Your task to perform on an android device: Add "panasonic triple a" to the cart on ebay Image 0: 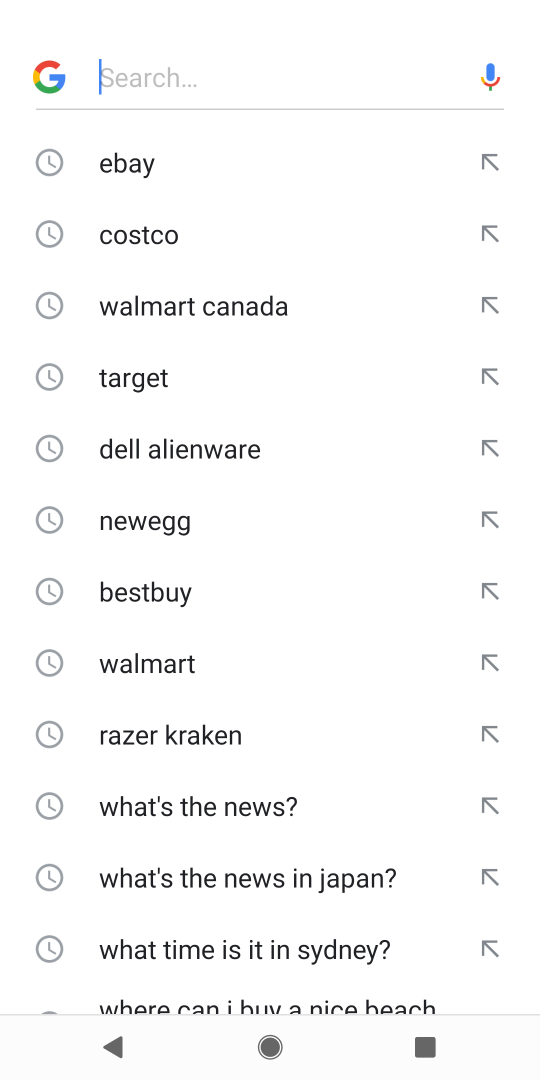
Step 0: click (253, 953)
Your task to perform on an android device: Add "panasonic triple a" to the cart on ebay Image 1: 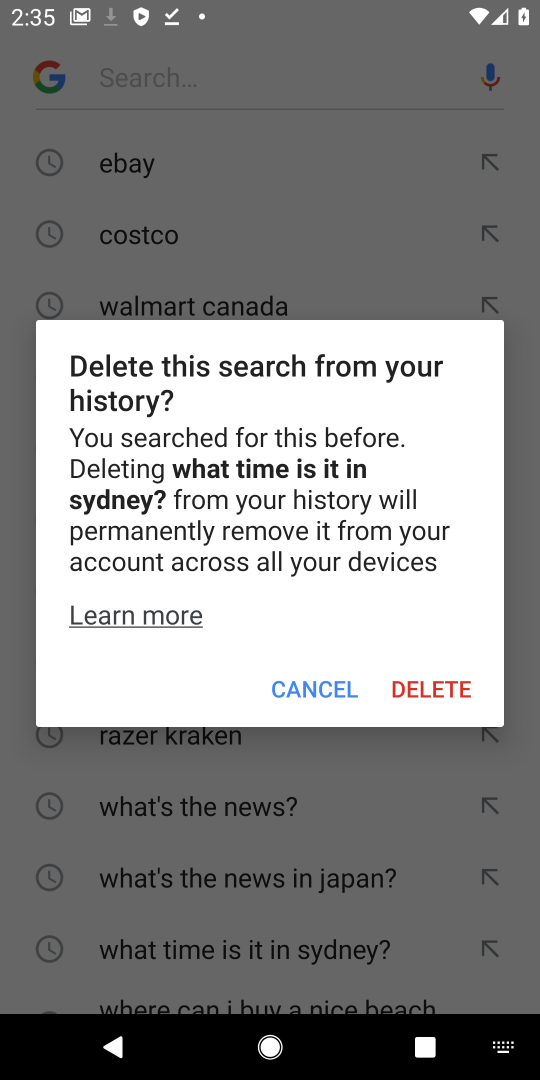
Step 1: click (312, 696)
Your task to perform on an android device: Add "panasonic triple a" to the cart on ebay Image 2: 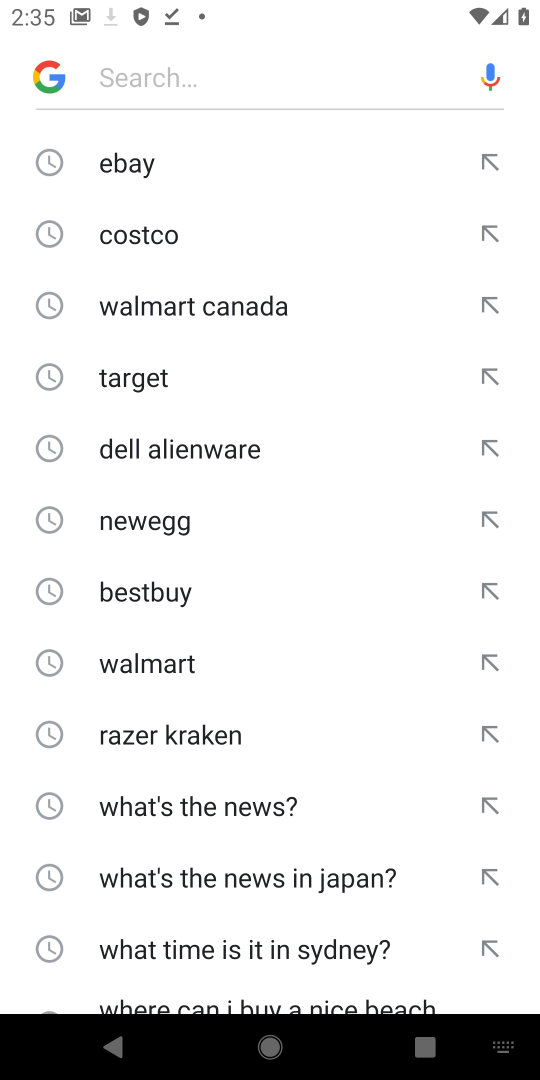
Step 2: click (104, 159)
Your task to perform on an android device: Add "panasonic triple a" to the cart on ebay Image 3: 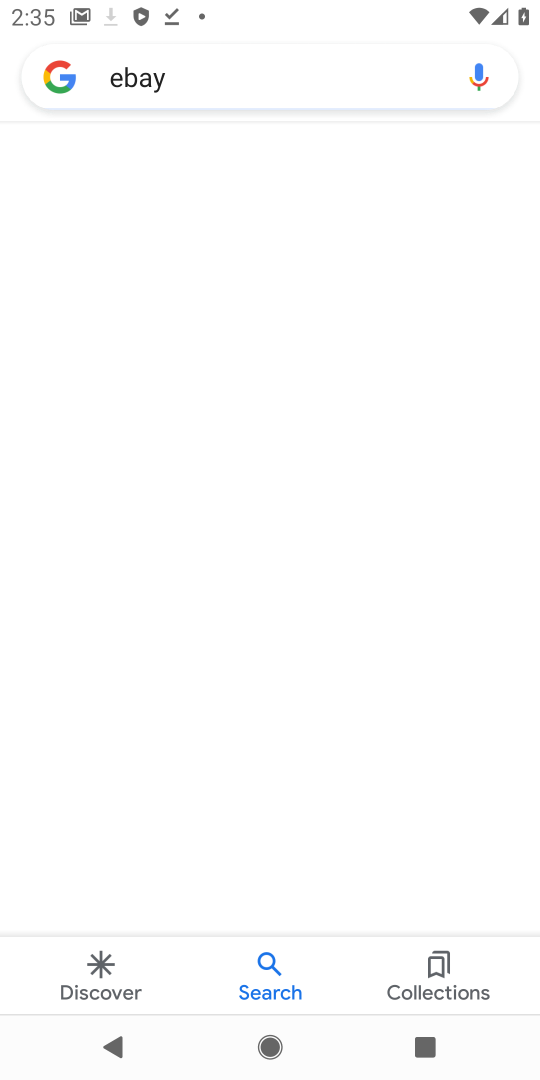
Step 3: click (119, 161)
Your task to perform on an android device: Add "panasonic triple a" to the cart on ebay Image 4: 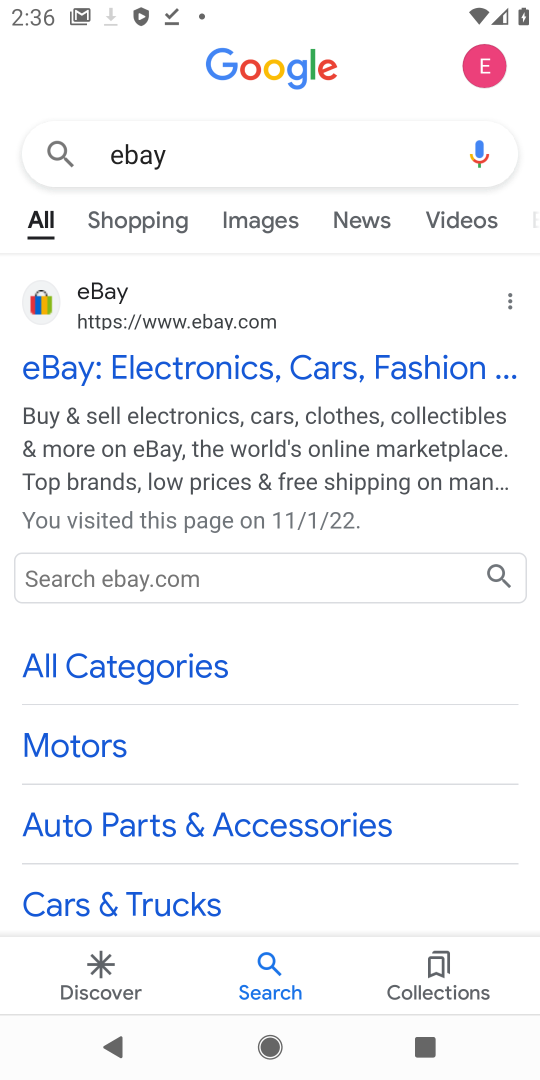
Step 4: click (117, 356)
Your task to perform on an android device: Add "panasonic triple a" to the cart on ebay Image 5: 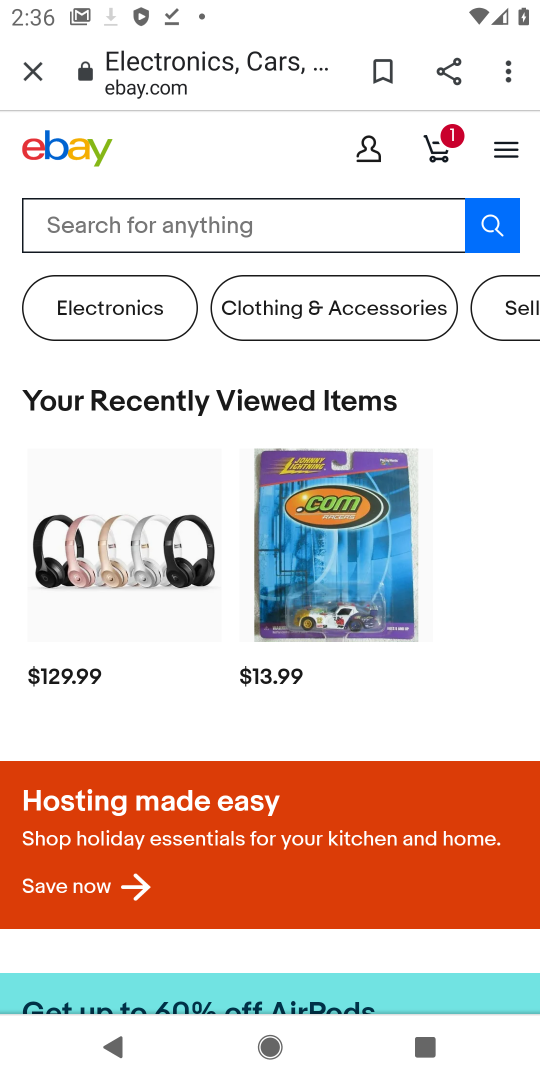
Step 5: click (187, 224)
Your task to perform on an android device: Add "panasonic triple a" to the cart on ebay Image 6: 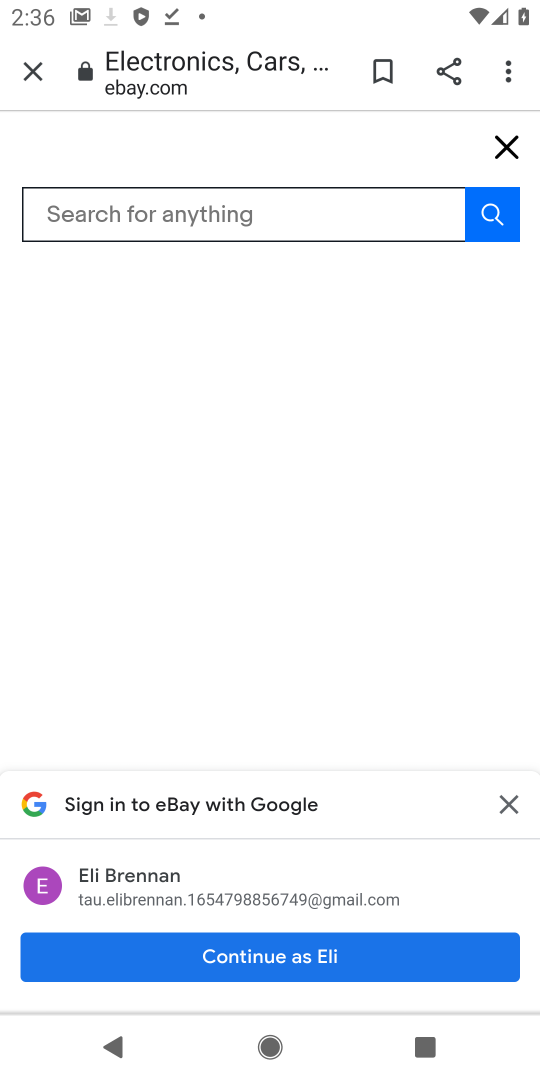
Step 6: type "panasonic triple a"
Your task to perform on an android device: Add "panasonic triple a" to the cart on ebay Image 7: 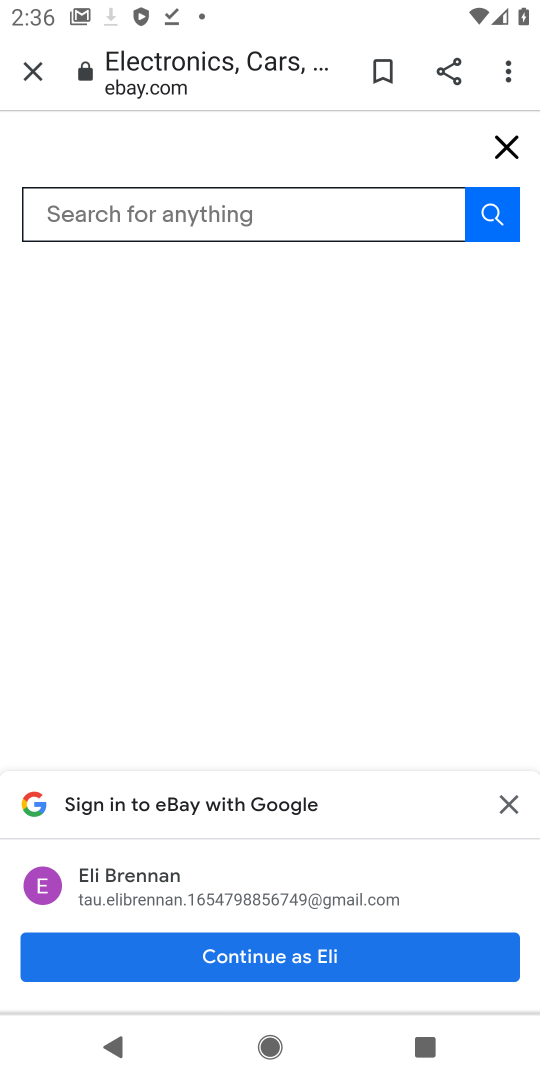
Step 7: type ""
Your task to perform on an android device: Add "panasonic triple a" to the cart on ebay Image 8: 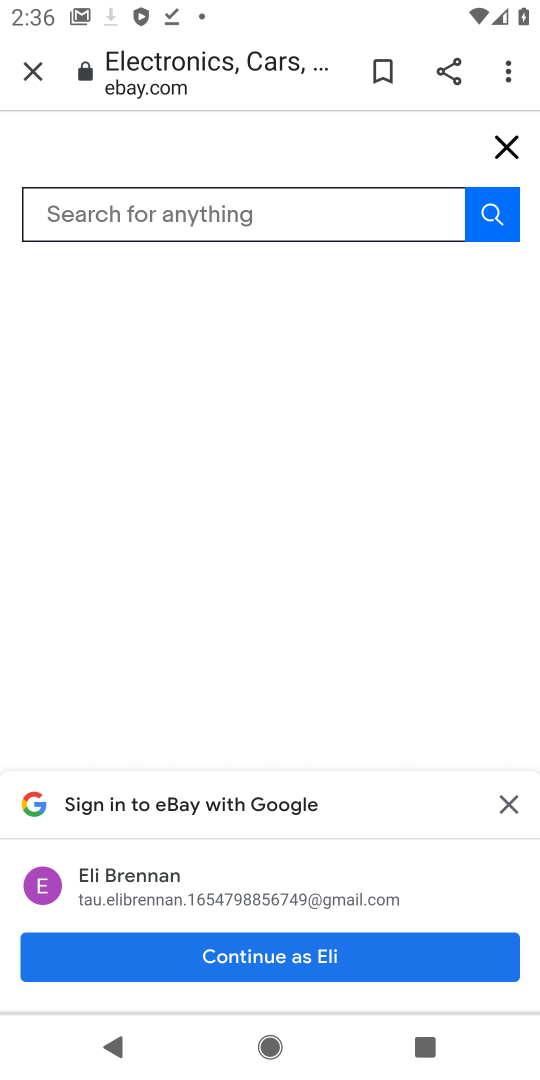
Step 8: click (132, 217)
Your task to perform on an android device: Add "panasonic triple a" to the cart on ebay Image 9: 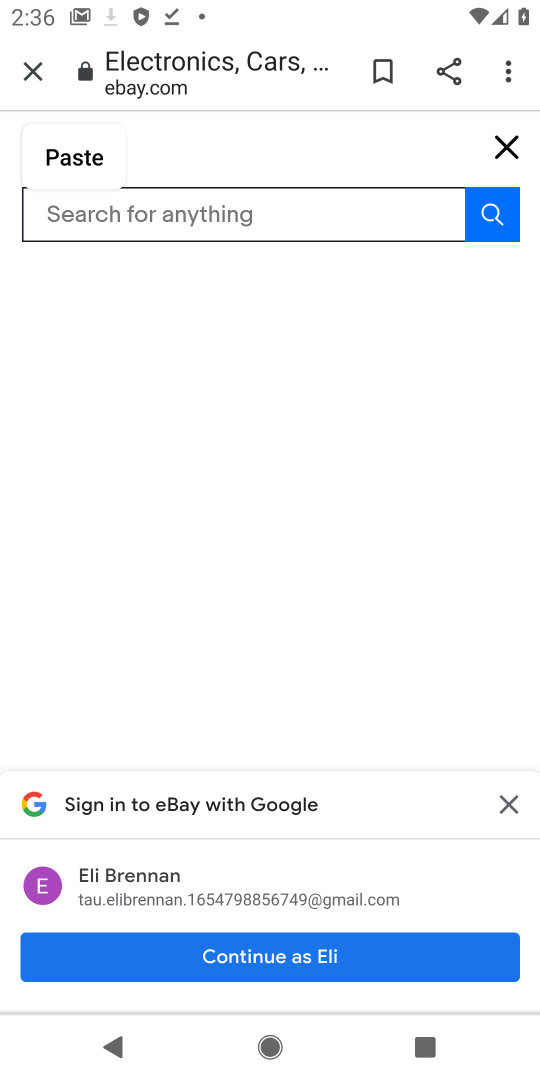
Step 9: click (510, 801)
Your task to perform on an android device: Add "panasonic triple a" to the cart on ebay Image 10: 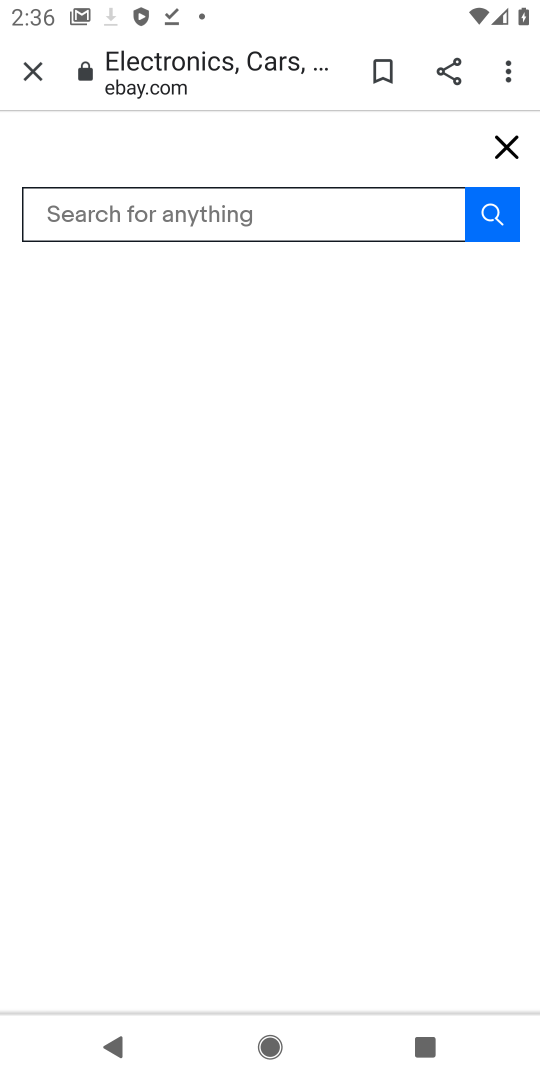
Step 10: click (142, 225)
Your task to perform on an android device: Add "panasonic triple a" to the cart on ebay Image 11: 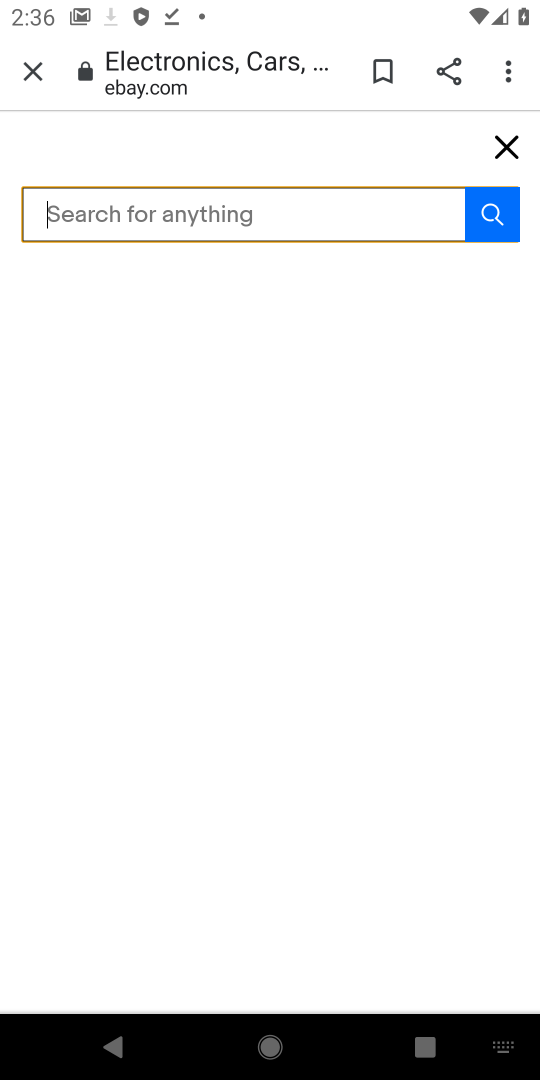
Step 11: type "panasonic triple a"
Your task to perform on an android device: Add "panasonic triple a" to the cart on ebay Image 12: 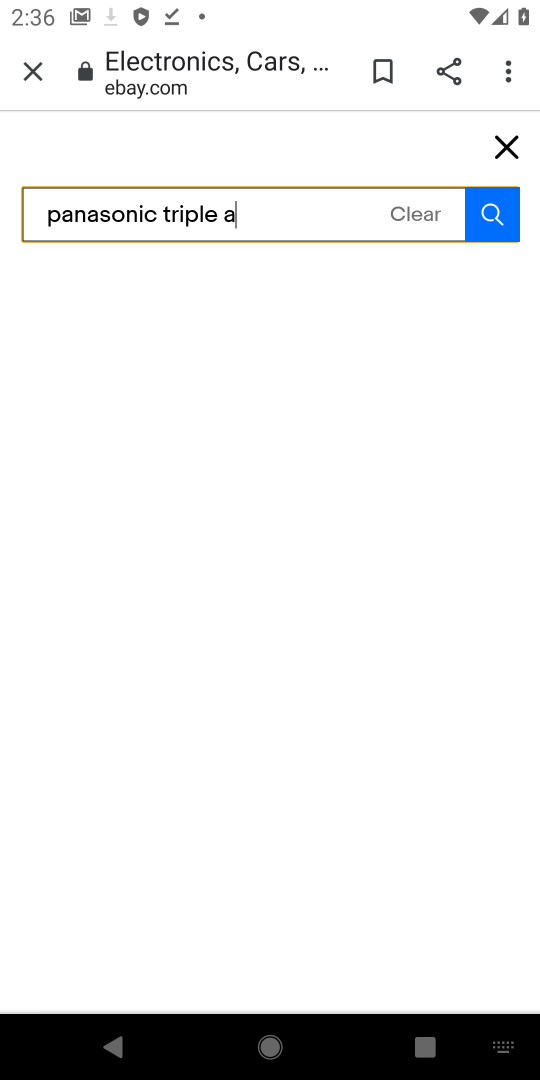
Step 12: type ""
Your task to perform on an android device: Add "panasonic triple a" to the cart on ebay Image 13: 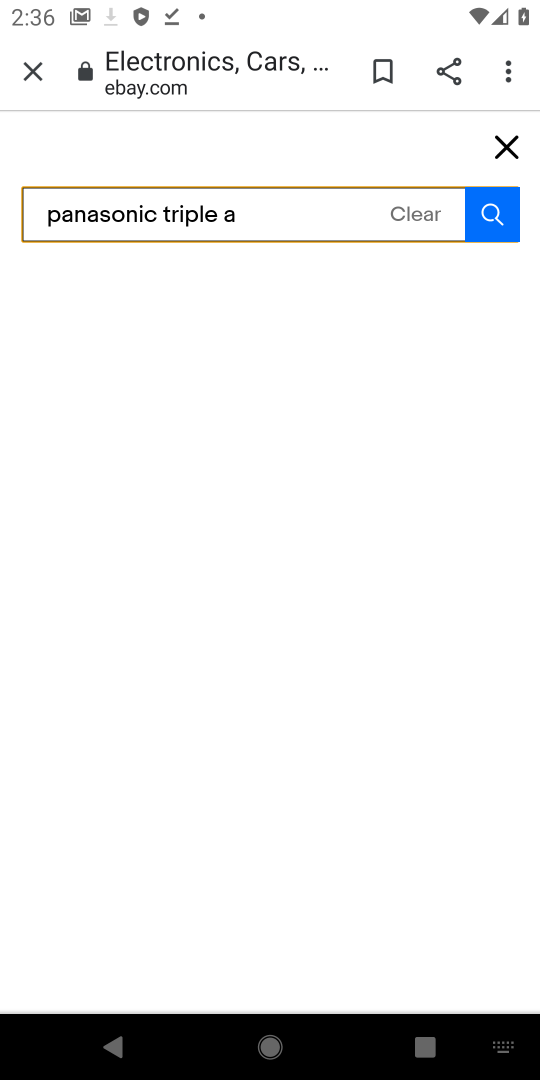
Step 13: press enter
Your task to perform on an android device: Add "panasonic triple a" to the cart on ebay Image 14: 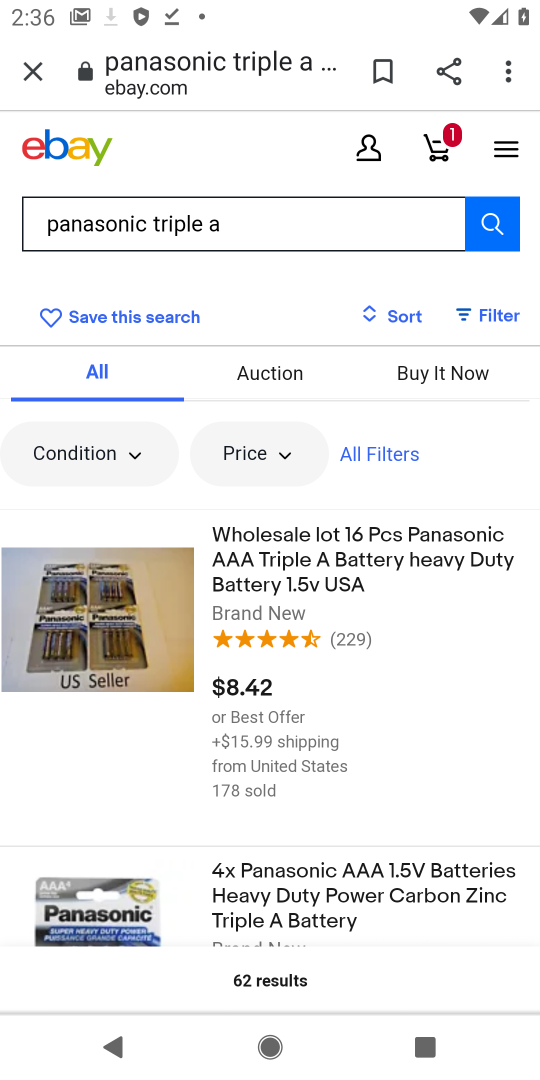
Step 14: click (296, 572)
Your task to perform on an android device: Add "panasonic triple a" to the cart on ebay Image 15: 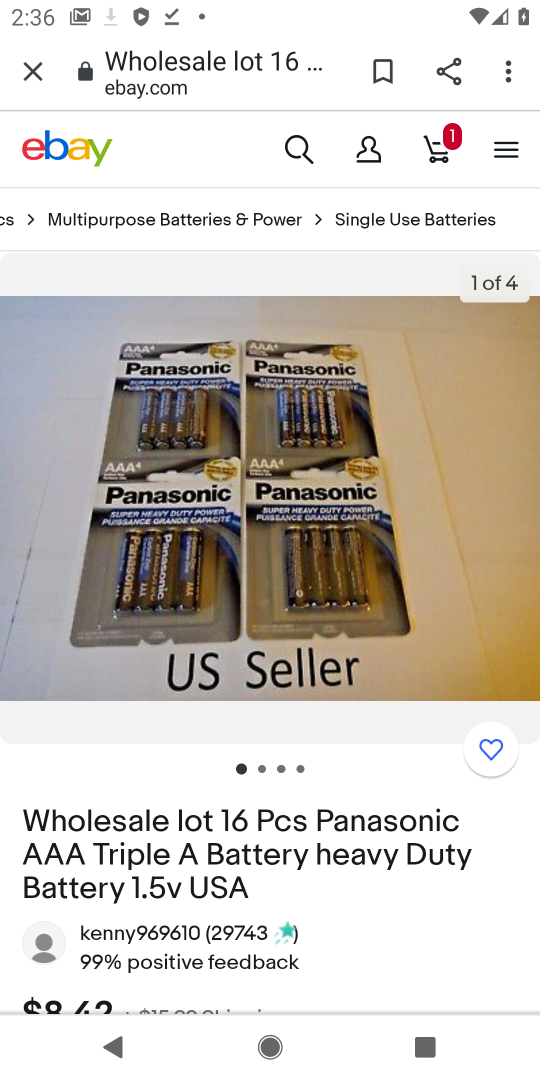
Step 15: drag from (404, 923) to (346, 239)
Your task to perform on an android device: Add "panasonic triple a" to the cart on ebay Image 16: 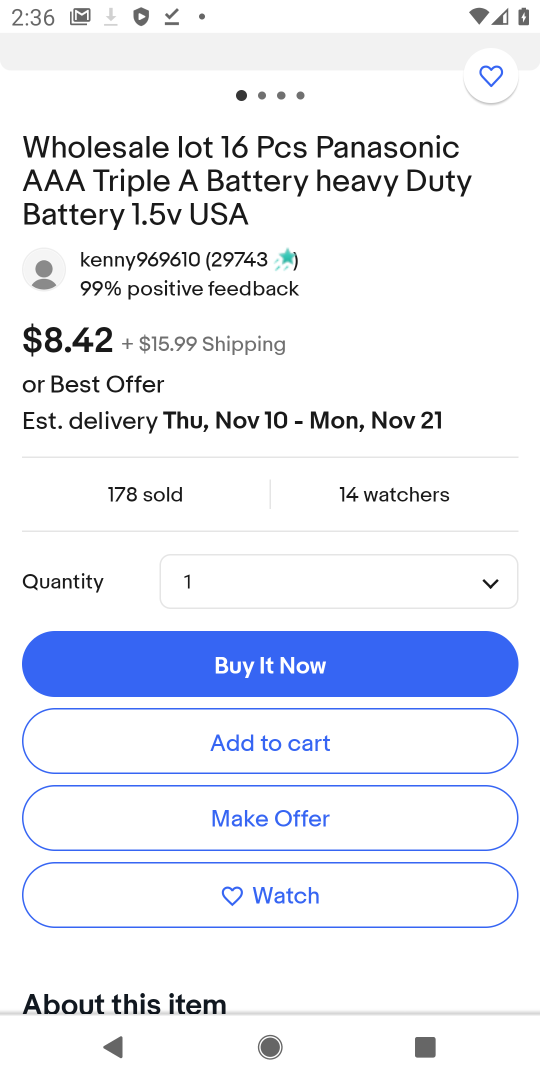
Step 16: click (257, 743)
Your task to perform on an android device: Add "panasonic triple a" to the cart on ebay Image 17: 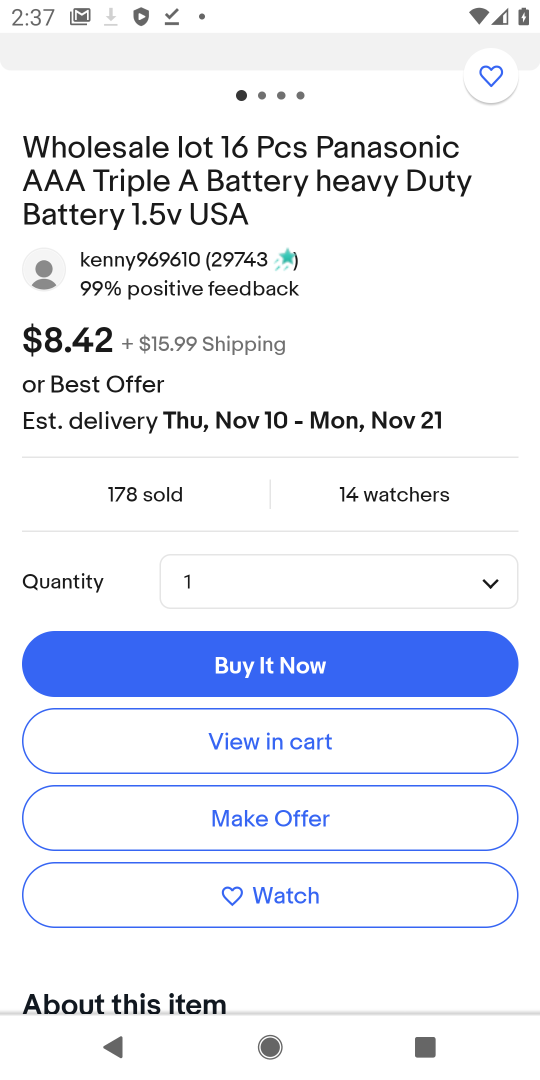
Step 17: task complete